Your task to perform on an android device: check the backup settings in the google photos Image 0: 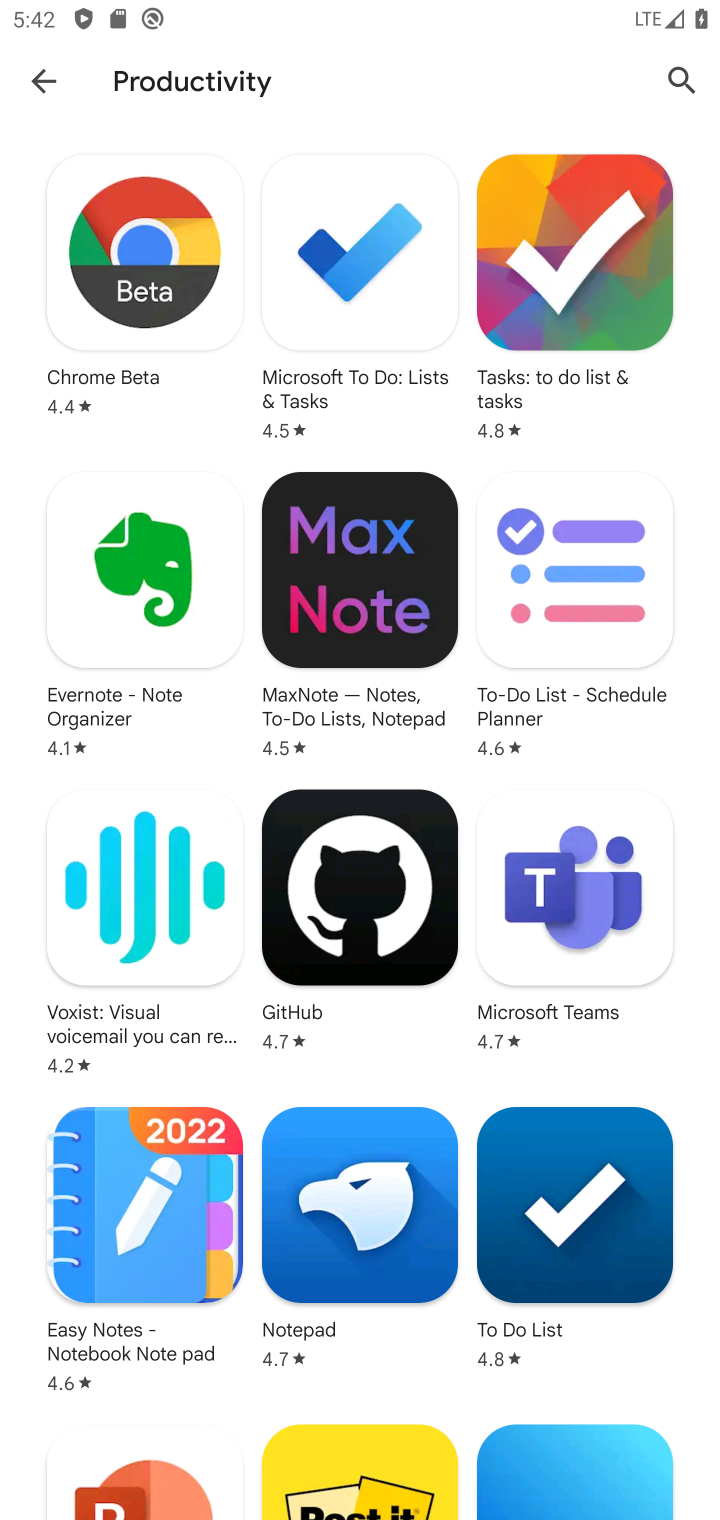
Step 0: press back button
Your task to perform on an android device: check the backup settings in the google photos Image 1: 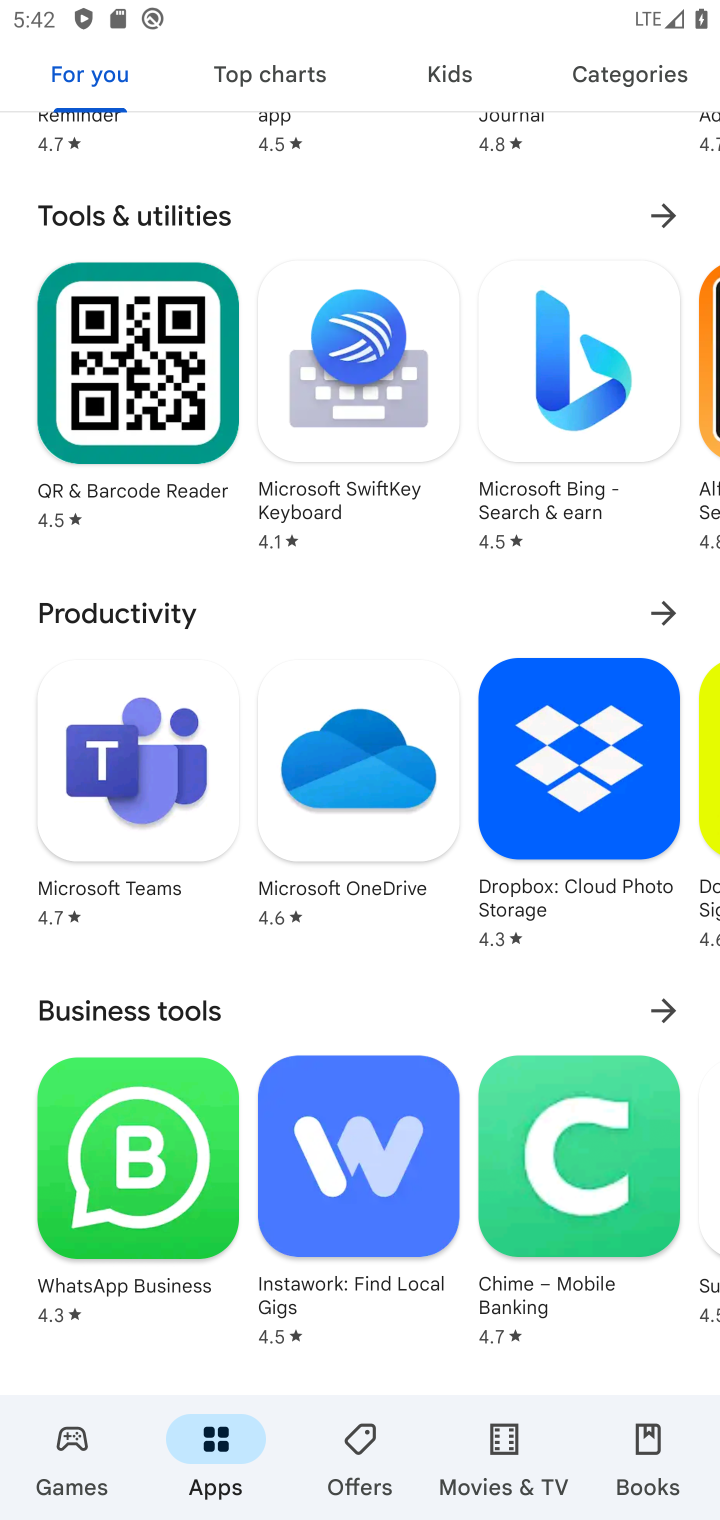
Step 1: press back button
Your task to perform on an android device: check the backup settings in the google photos Image 2: 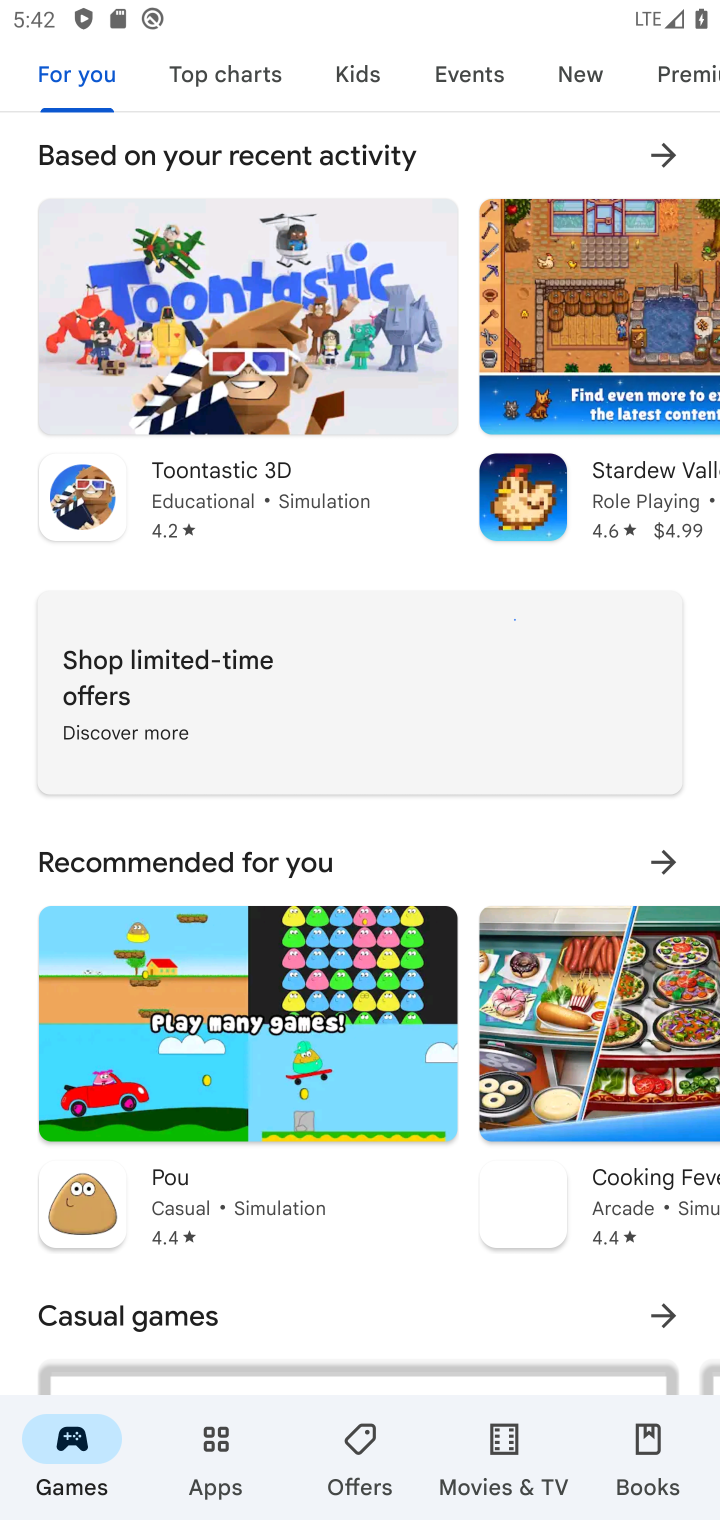
Step 2: press back button
Your task to perform on an android device: check the backup settings in the google photos Image 3: 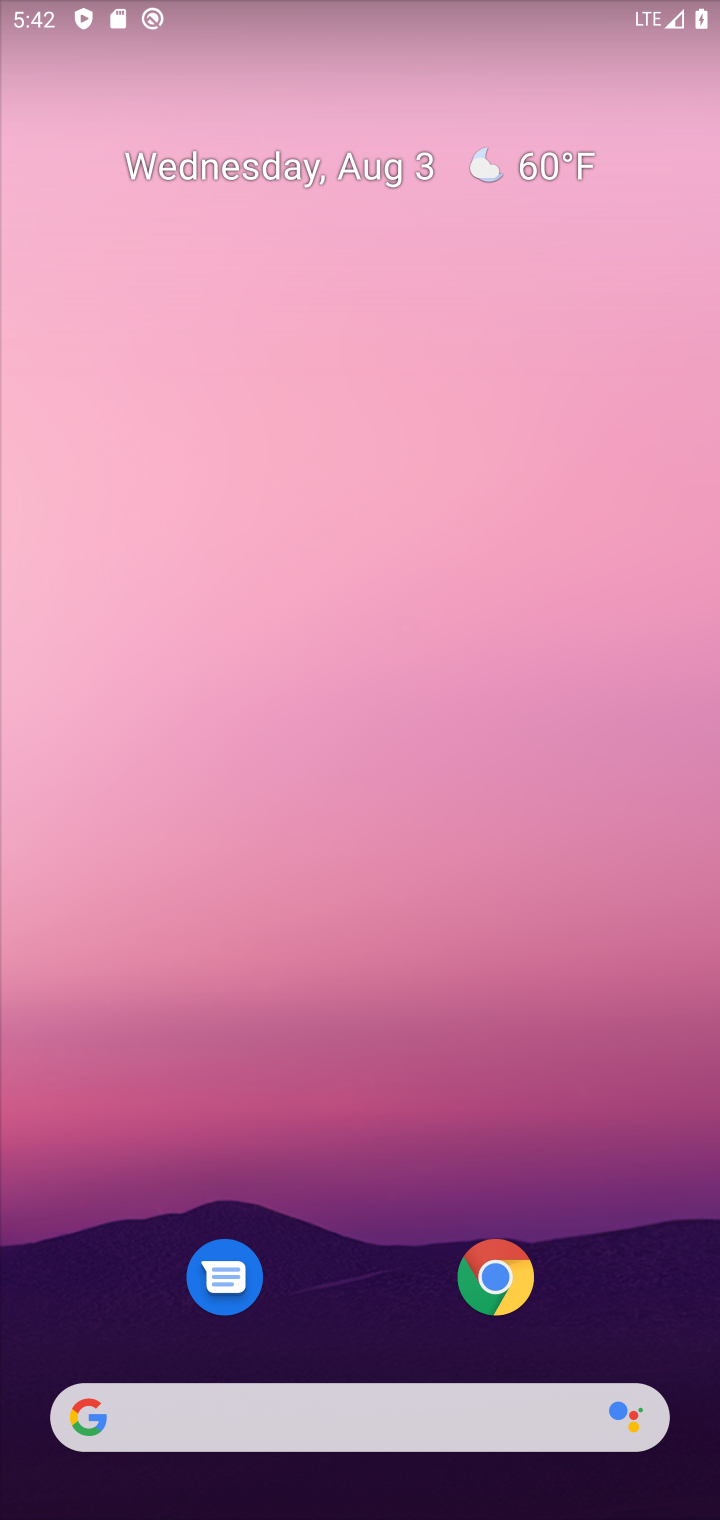
Step 3: drag from (387, 1101) to (484, 67)
Your task to perform on an android device: check the backup settings in the google photos Image 4: 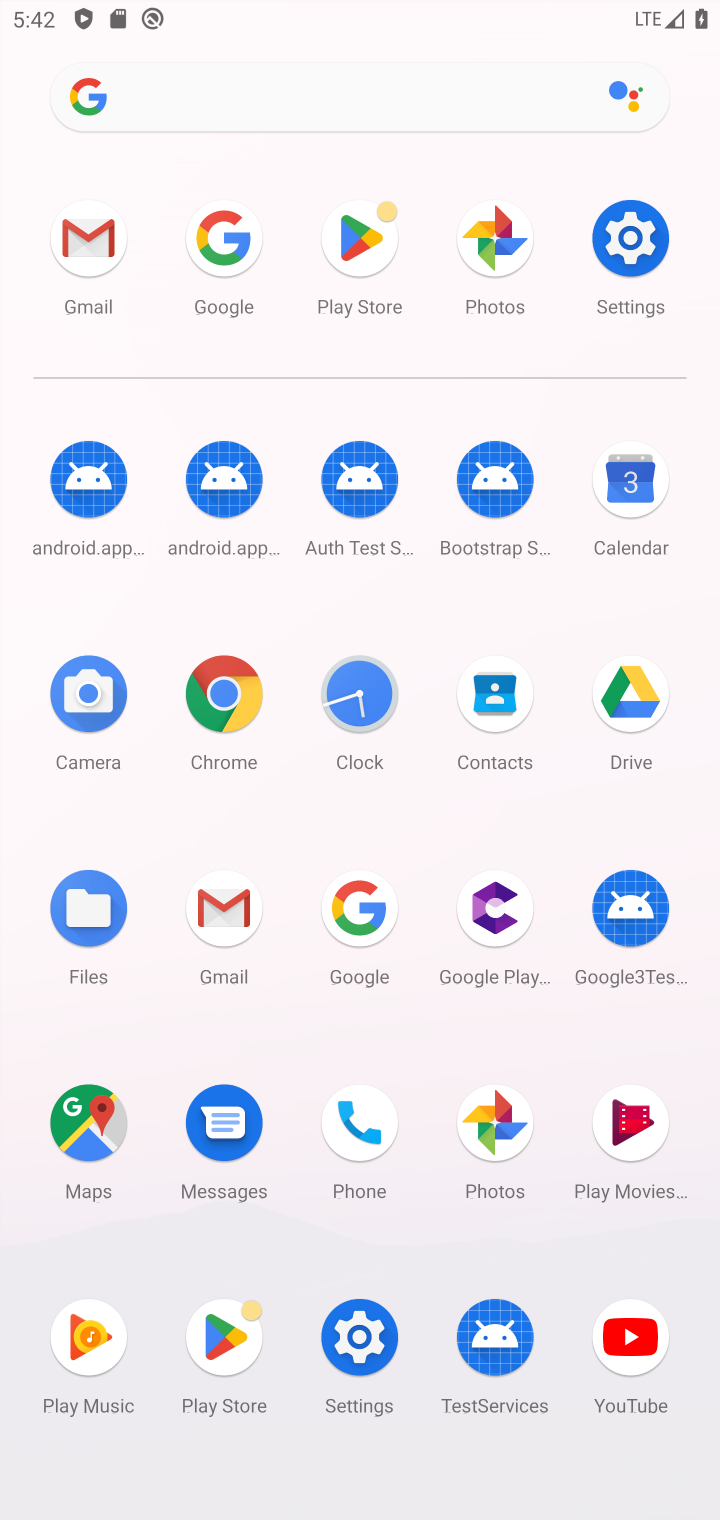
Step 4: click (492, 1117)
Your task to perform on an android device: check the backup settings in the google photos Image 5: 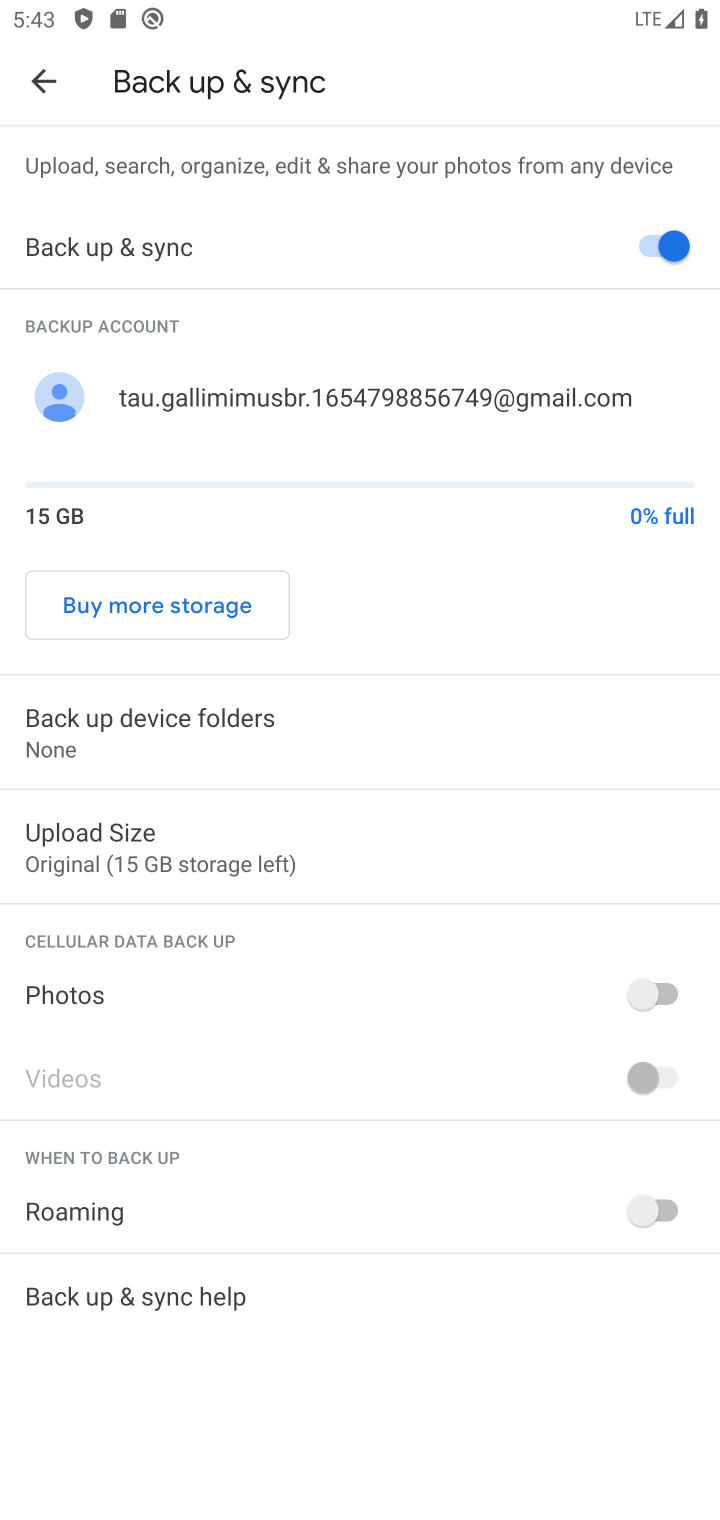
Step 5: task complete